Your task to perform on an android device: open a bookmark in the chrome app Image 0: 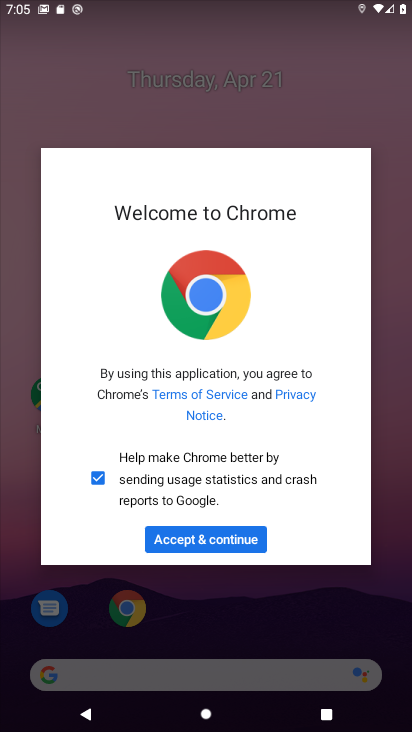
Step 0: click (217, 540)
Your task to perform on an android device: open a bookmark in the chrome app Image 1: 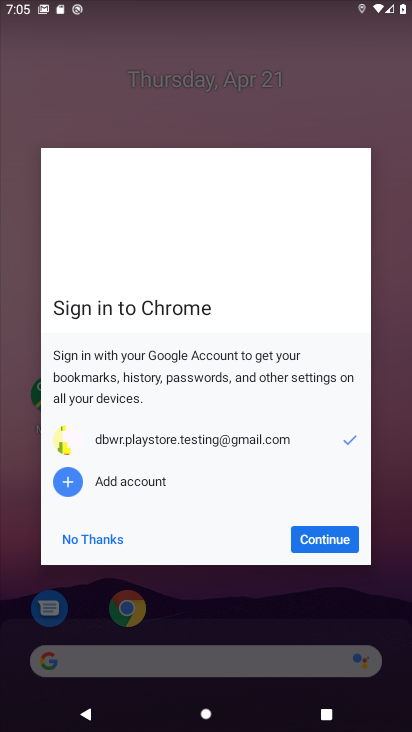
Step 1: click (345, 543)
Your task to perform on an android device: open a bookmark in the chrome app Image 2: 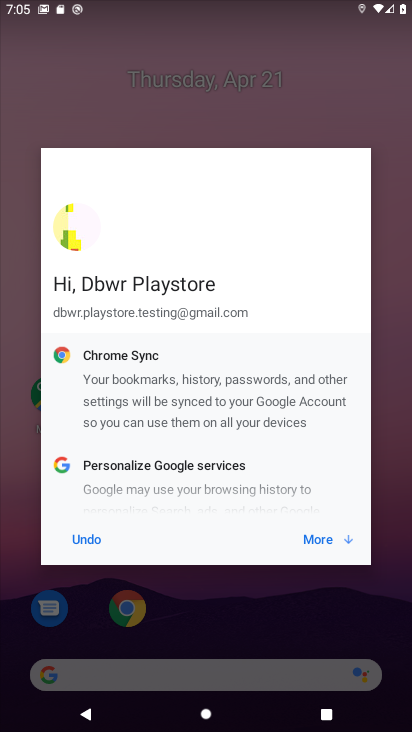
Step 2: click (316, 544)
Your task to perform on an android device: open a bookmark in the chrome app Image 3: 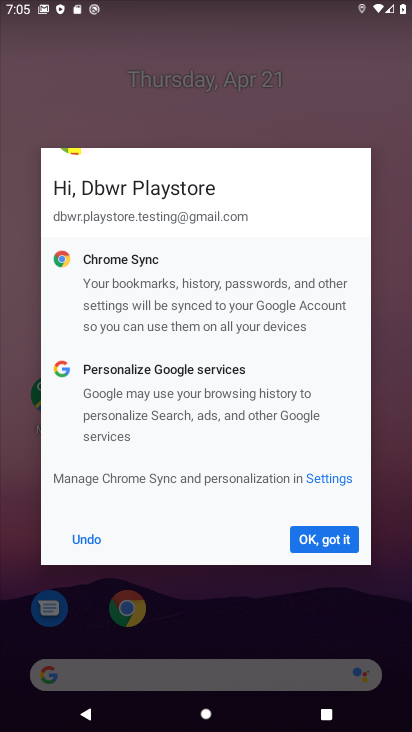
Step 3: click (316, 544)
Your task to perform on an android device: open a bookmark in the chrome app Image 4: 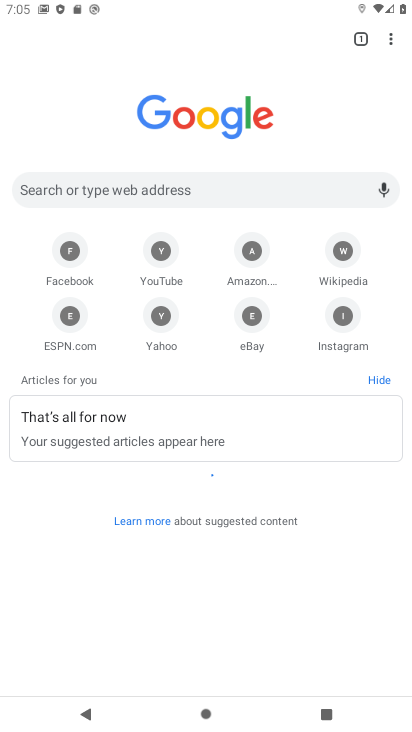
Step 4: click (272, 191)
Your task to perform on an android device: open a bookmark in the chrome app Image 5: 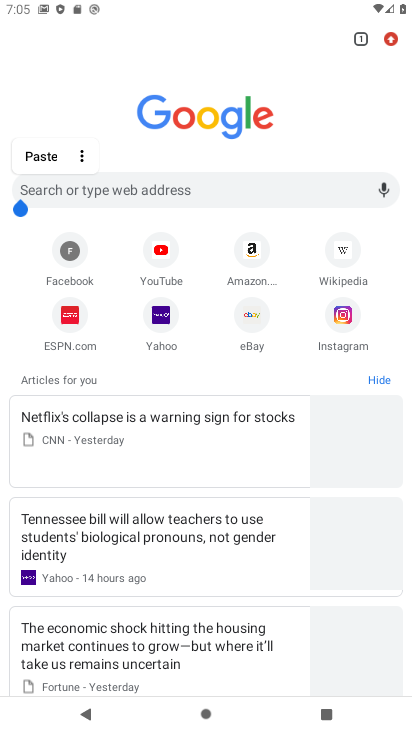
Step 5: click (119, 183)
Your task to perform on an android device: open a bookmark in the chrome app Image 6: 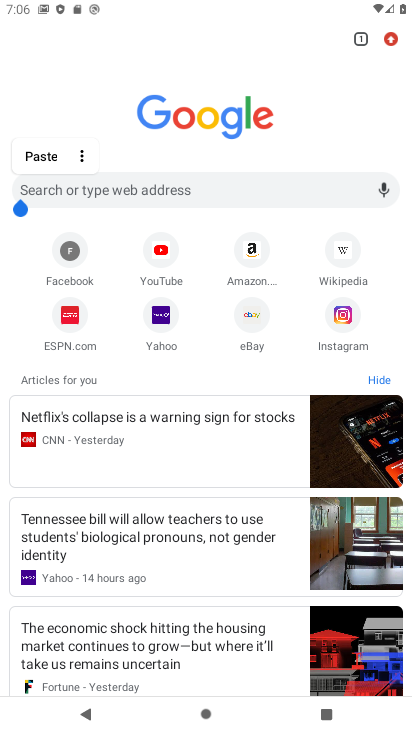
Step 6: click (390, 37)
Your task to perform on an android device: open a bookmark in the chrome app Image 7: 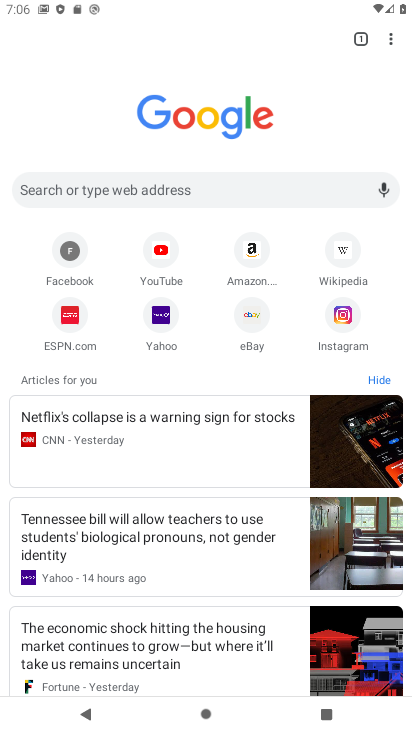
Step 7: drag from (390, 42) to (276, 207)
Your task to perform on an android device: open a bookmark in the chrome app Image 8: 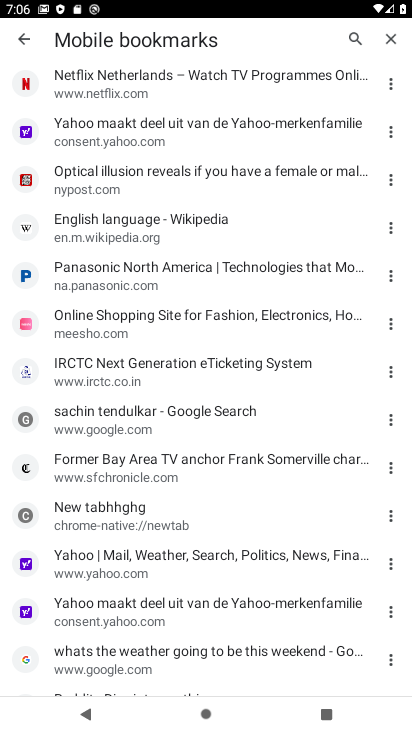
Step 8: click (138, 331)
Your task to perform on an android device: open a bookmark in the chrome app Image 9: 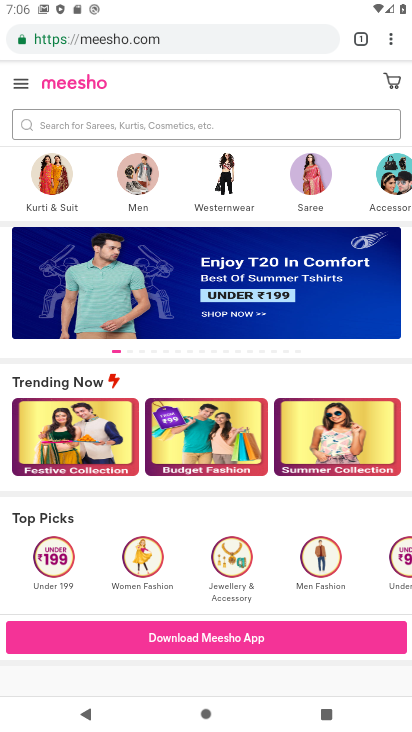
Step 9: task complete